Your task to perform on an android device: make emails show in primary in the gmail app Image 0: 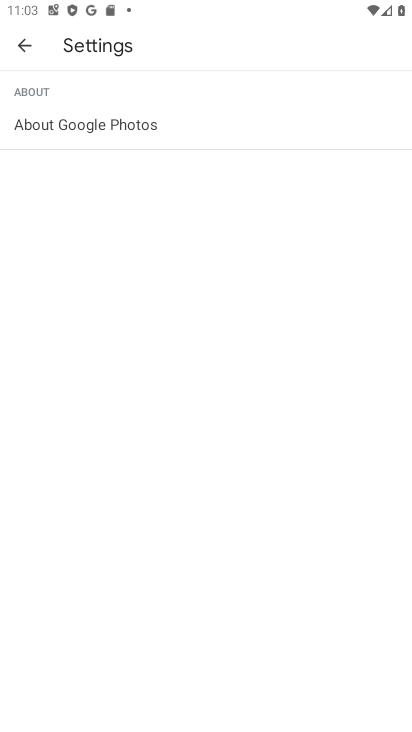
Step 0: press home button
Your task to perform on an android device: make emails show in primary in the gmail app Image 1: 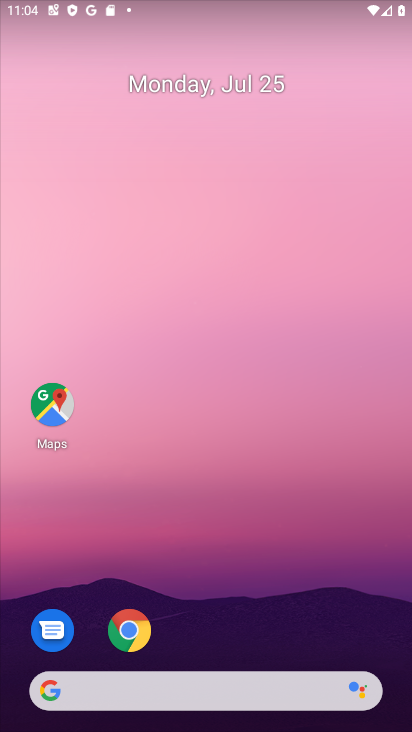
Step 1: drag from (227, 679) to (242, 69)
Your task to perform on an android device: make emails show in primary in the gmail app Image 2: 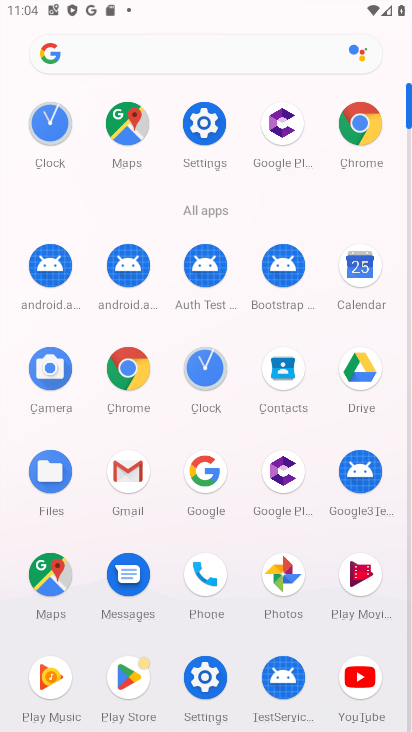
Step 2: click (121, 478)
Your task to perform on an android device: make emails show in primary in the gmail app Image 3: 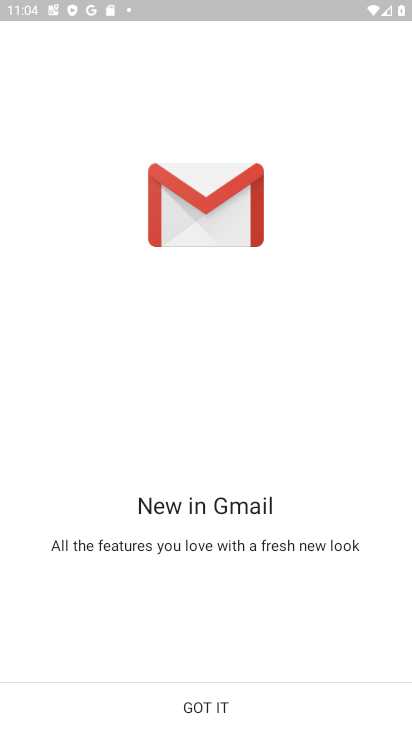
Step 3: click (199, 703)
Your task to perform on an android device: make emails show in primary in the gmail app Image 4: 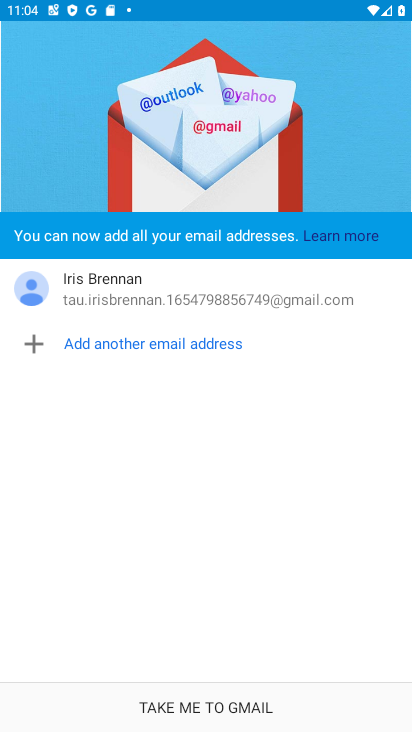
Step 4: click (201, 710)
Your task to perform on an android device: make emails show in primary in the gmail app Image 5: 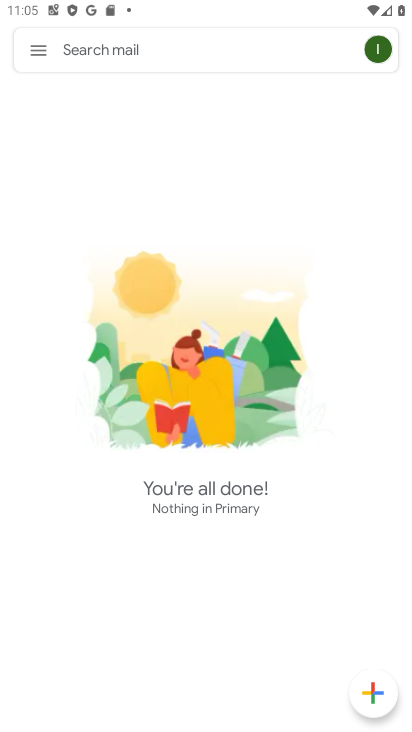
Step 5: click (37, 48)
Your task to perform on an android device: make emails show in primary in the gmail app Image 6: 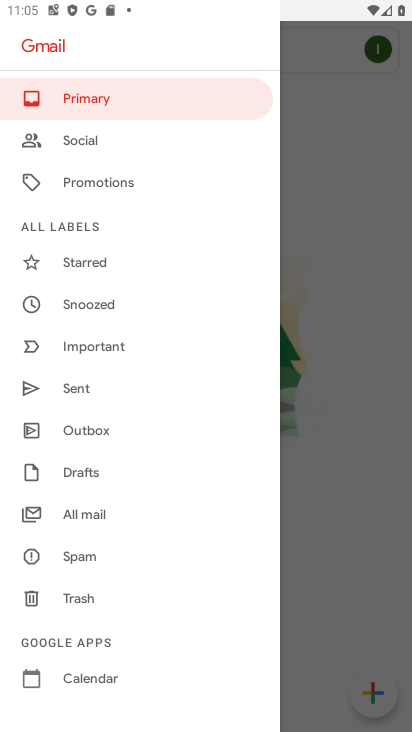
Step 6: drag from (146, 600) to (155, 313)
Your task to perform on an android device: make emails show in primary in the gmail app Image 7: 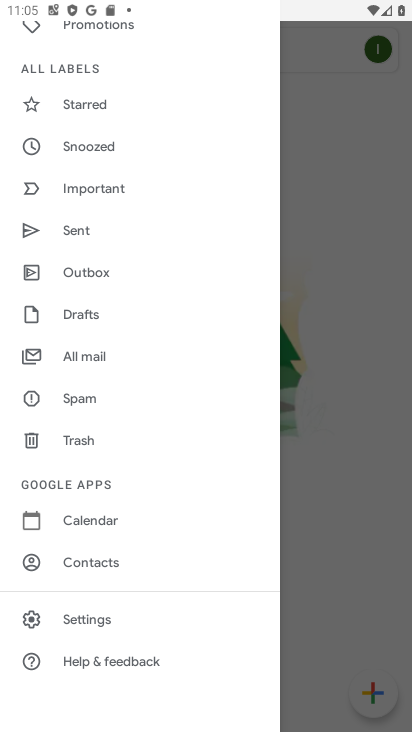
Step 7: click (100, 618)
Your task to perform on an android device: make emails show in primary in the gmail app Image 8: 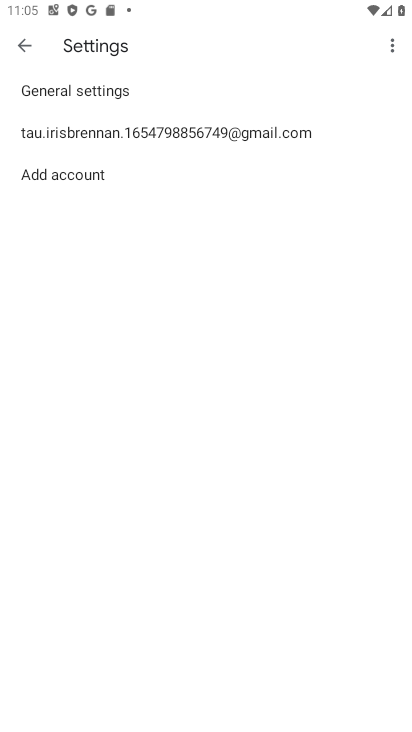
Step 8: click (122, 136)
Your task to perform on an android device: make emails show in primary in the gmail app Image 9: 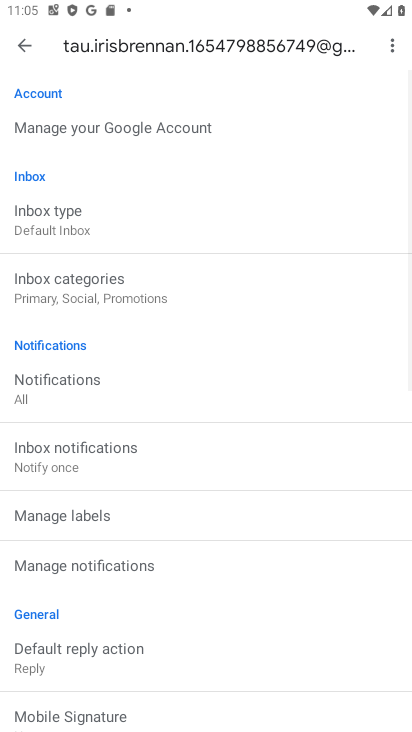
Step 9: click (83, 289)
Your task to perform on an android device: make emails show in primary in the gmail app Image 10: 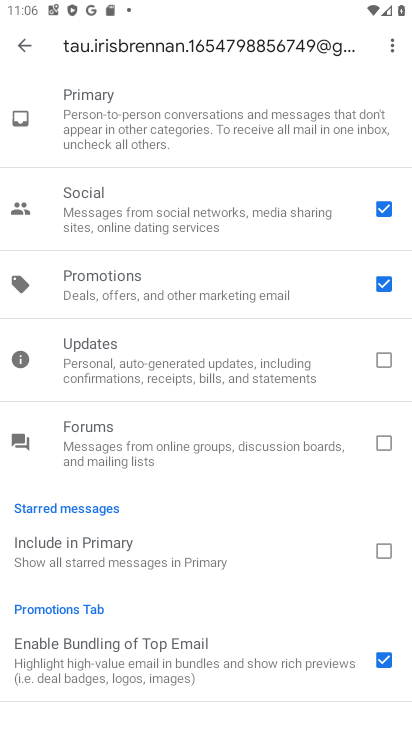
Step 10: click (381, 207)
Your task to perform on an android device: make emails show in primary in the gmail app Image 11: 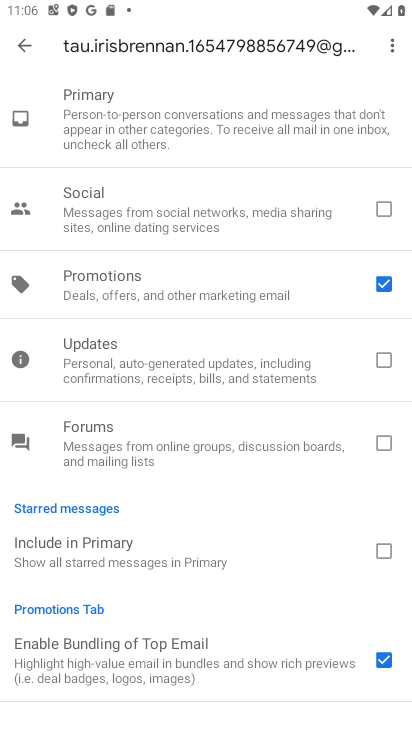
Step 11: click (386, 285)
Your task to perform on an android device: make emails show in primary in the gmail app Image 12: 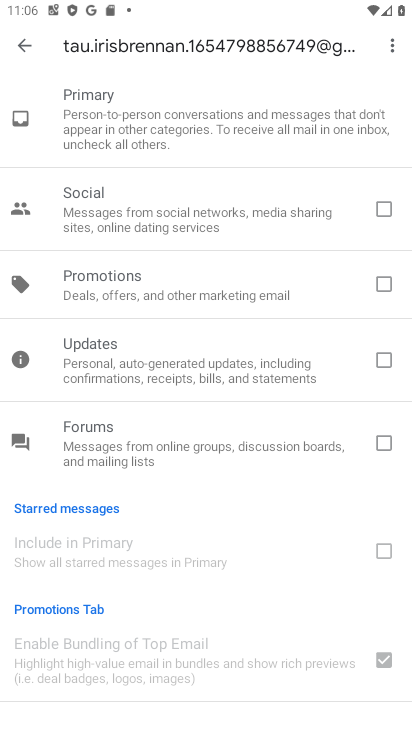
Step 12: click (24, 40)
Your task to perform on an android device: make emails show in primary in the gmail app Image 13: 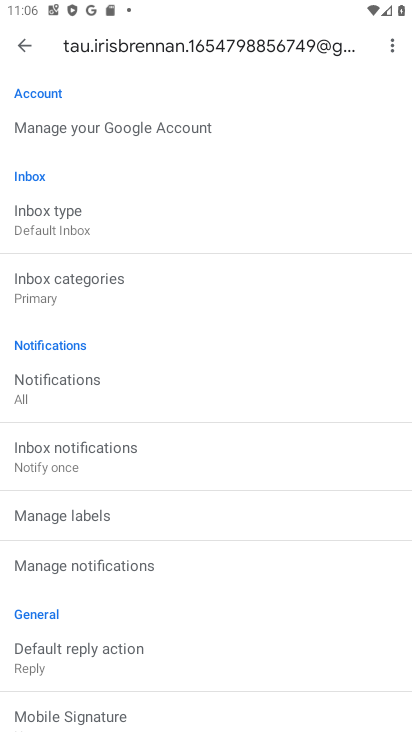
Step 13: task complete